Your task to perform on an android device: Open internet settings Image 0: 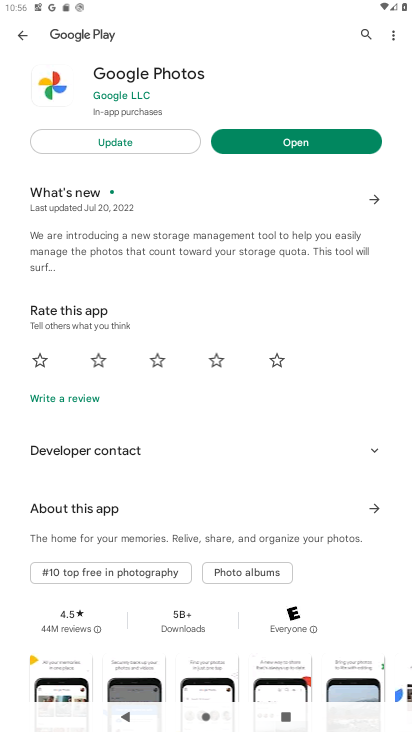
Step 0: drag from (325, 5) to (296, 683)
Your task to perform on an android device: Open internet settings Image 1: 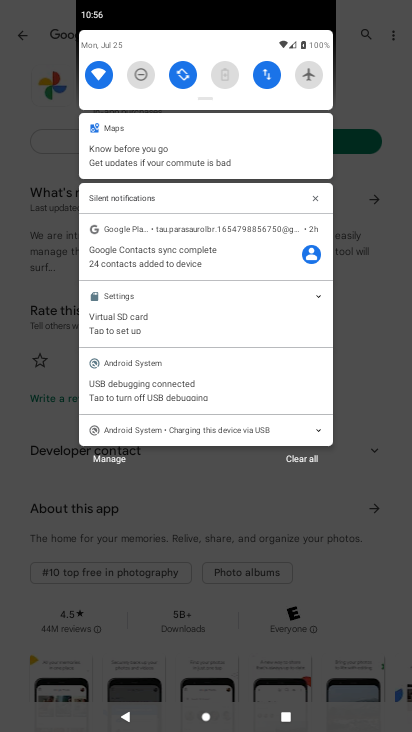
Step 1: click (270, 69)
Your task to perform on an android device: Open internet settings Image 2: 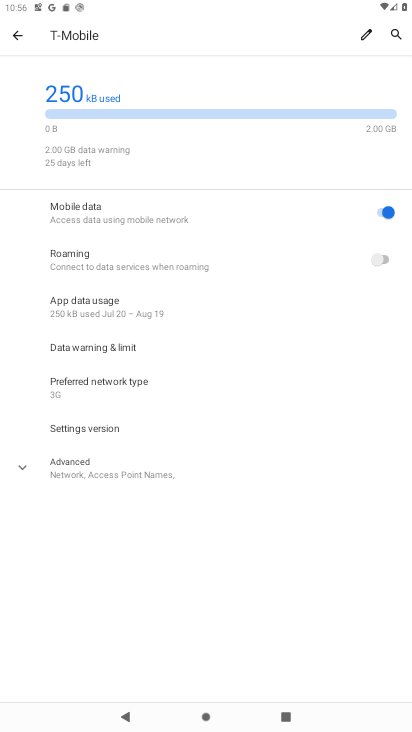
Step 2: task complete